Your task to perform on an android device: Go to display settings Image 0: 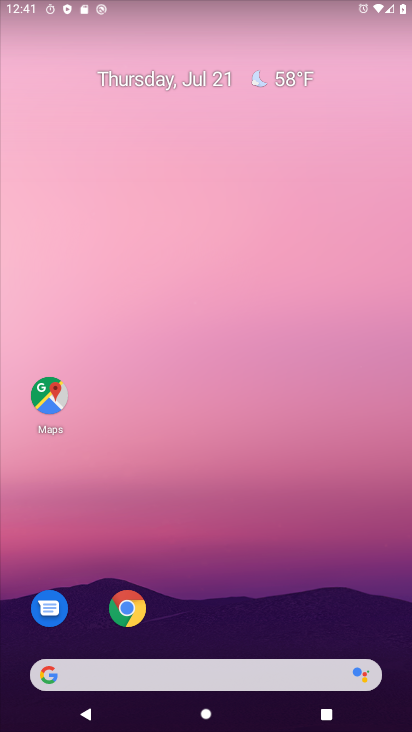
Step 0: drag from (220, 641) to (205, 18)
Your task to perform on an android device: Go to display settings Image 1: 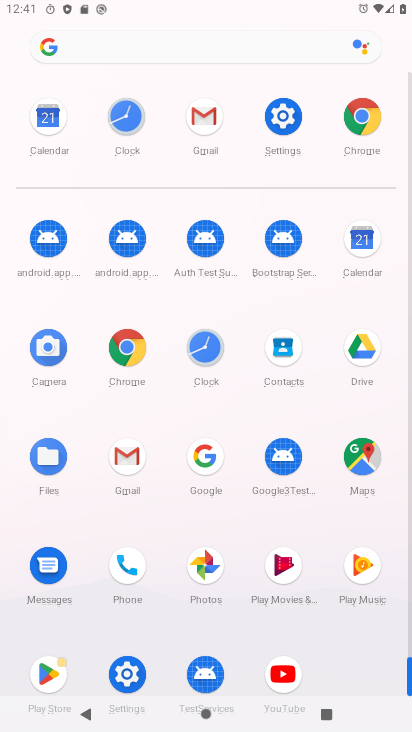
Step 1: click (277, 114)
Your task to perform on an android device: Go to display settings Image 2: 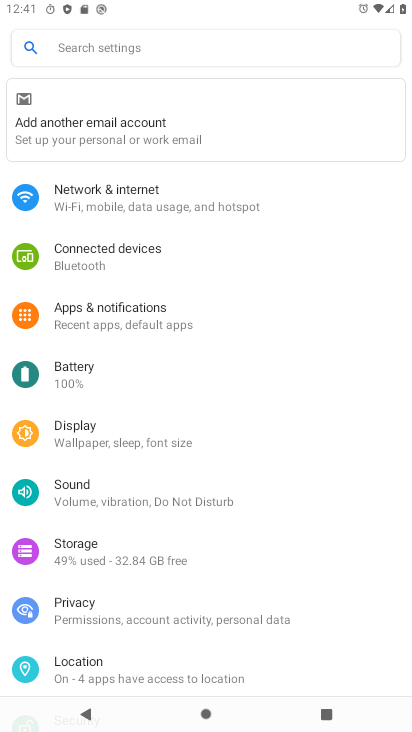
Step 2: click (96, 430)
Your task to perform on an android device: Go to display settings Image 3: 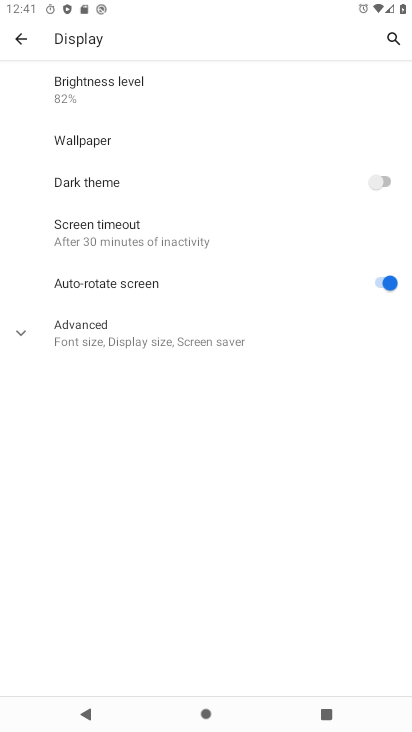
Step 3: click (20, 332)
Your task to perform on an android device: Go to display settings Image 4: 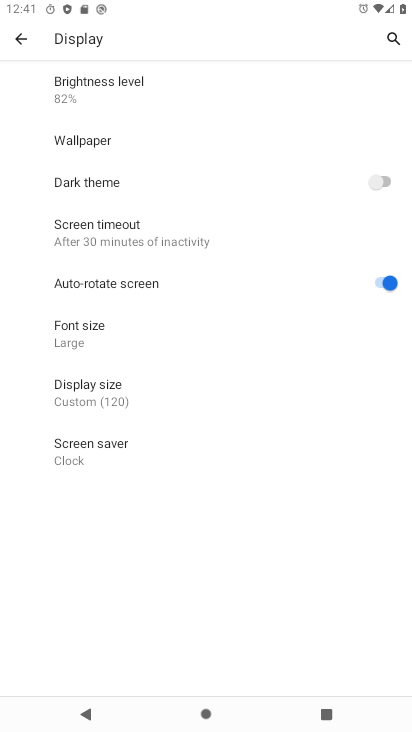
Step 4: task complete